Your task to perform on an android device: add a contact in the contacts app Image 0: 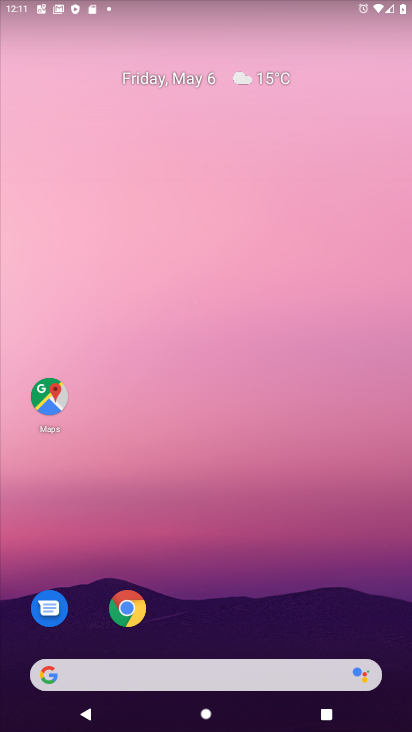
Step 0: drag from (218, 551) to (221, 178)
Your task to perform on an android device: add a contact in the contacts app Image 1: 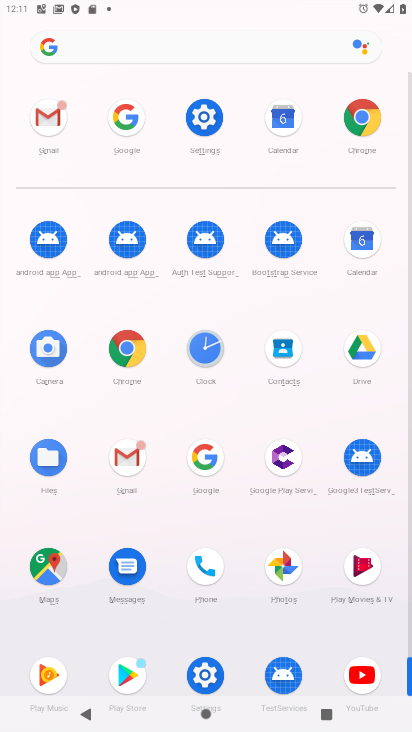
Step 1: click (288, 362)
Your task to perform on an android device: add a contact in the contacts app Image 2: 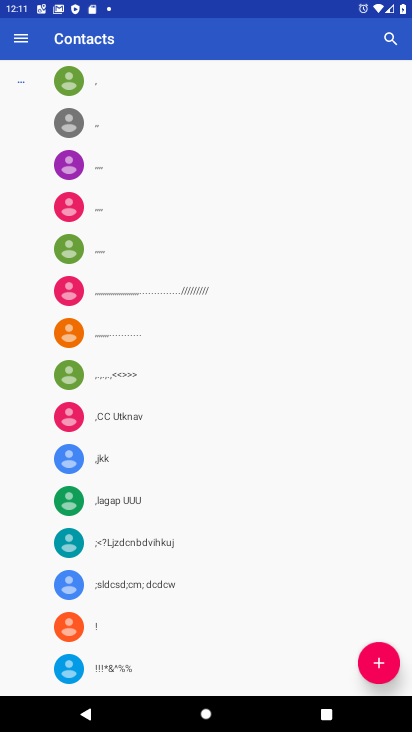
Step 2: click (377, 655)
Your task to perform on an android device: add a contact in the contacts app Image 3: 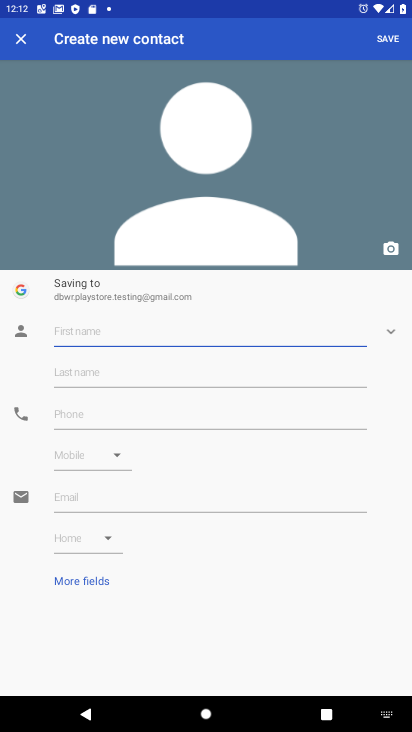
Step 3: click (143, 328)
Your task to perform on an android device: add a contact in the contacts app Image 4: 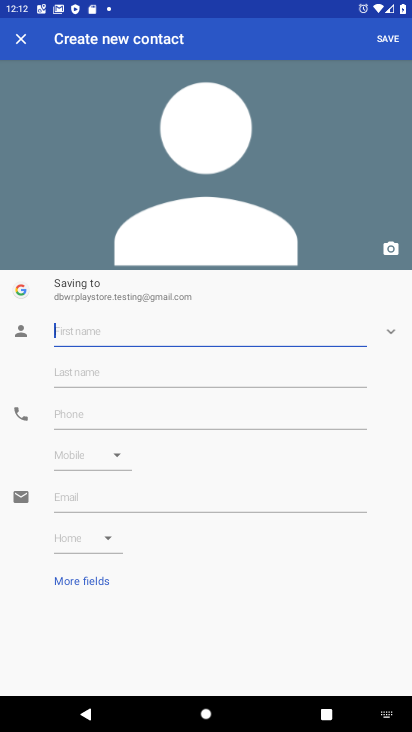
Step 4: type "simar"
Your task to perform on an android device: add a contact in the contacts app Image 5: 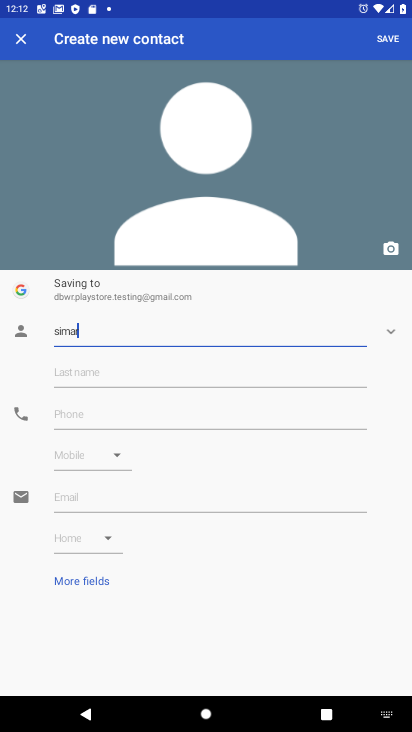
Step 5: click (170, 407)
Your task to perform on an android device: add a contact in the contacts app Image 6: 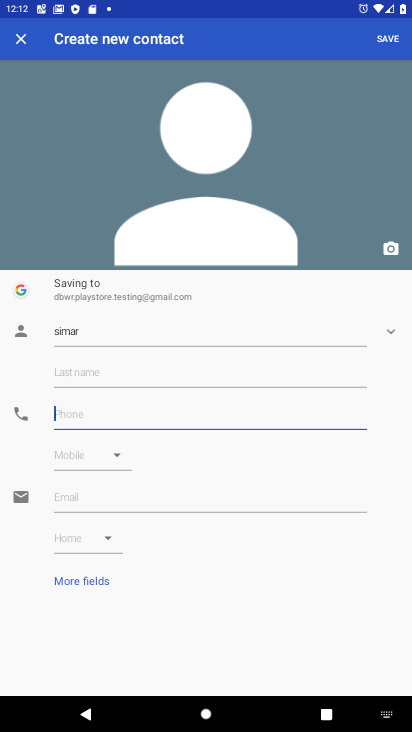
Step 6: type "5456545657"
Your task to perform on an android device: add a contact in the contacts app Image 7: 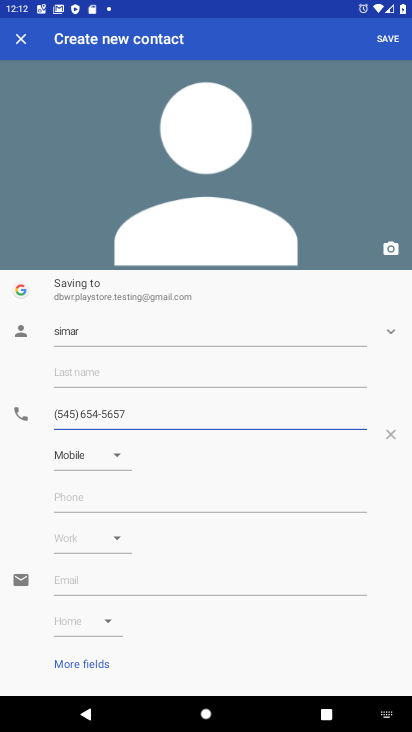
Step 7: click (393, 38)
Your task to perform on an android device: add a contact in the contacts app Image 8: 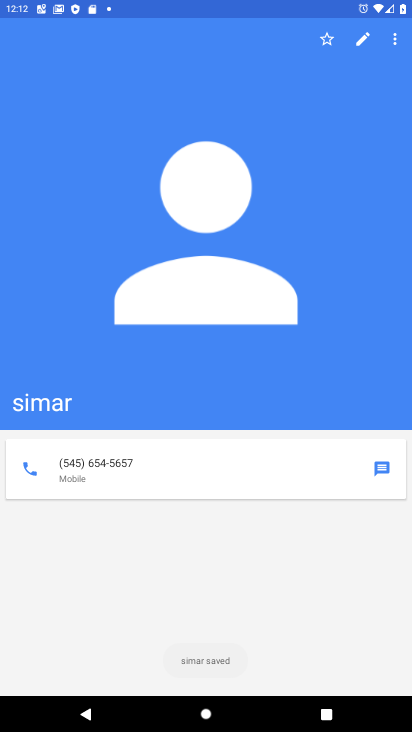
Step 8: task complete